Your task to perform on an android device: Go to accessibility settings Image 0: 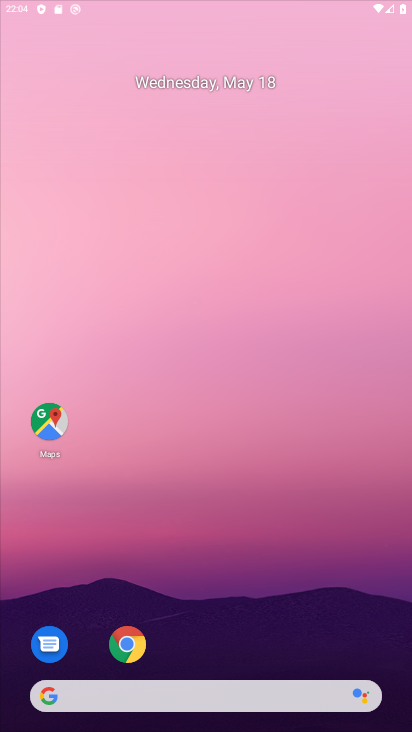
Step 0: click (354, 182)
Your task to perform on an android device: Go to accessibility settings Image 1: 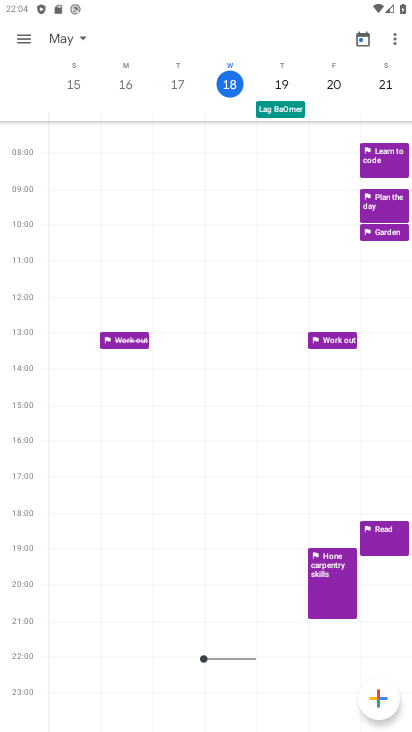
Step 1: press home button
Your task to perform on an android device: Go to accessibility settings Image 2: 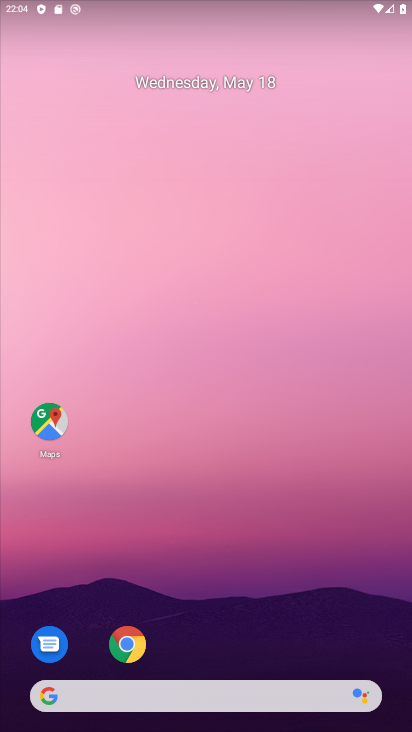
Step 2: drag from (222, 600) to (224, 203)
Your task to perform on an android device: Go to accessibility settings Image 3: 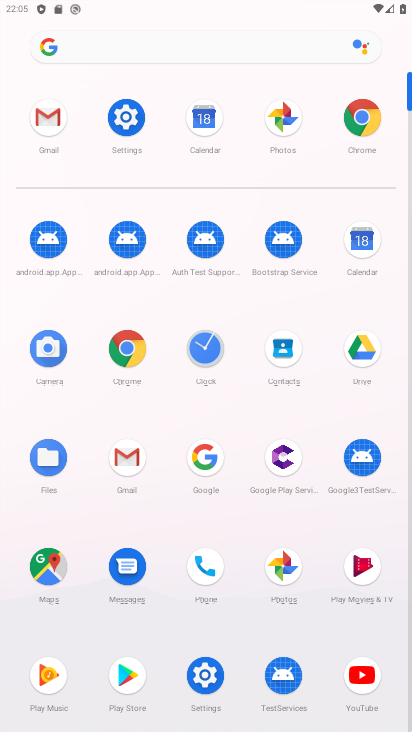
Step 3: click (125, 127)
Your task to perform on an android device: Go to accessibility settings Image 4: 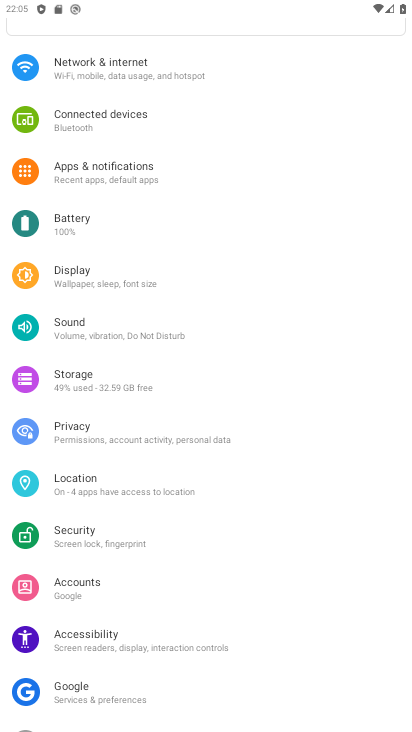
Step 4: drag from (137, 613) to (175, 188)
Your task to perform on an android device: Go to accessibility settings Image 5: 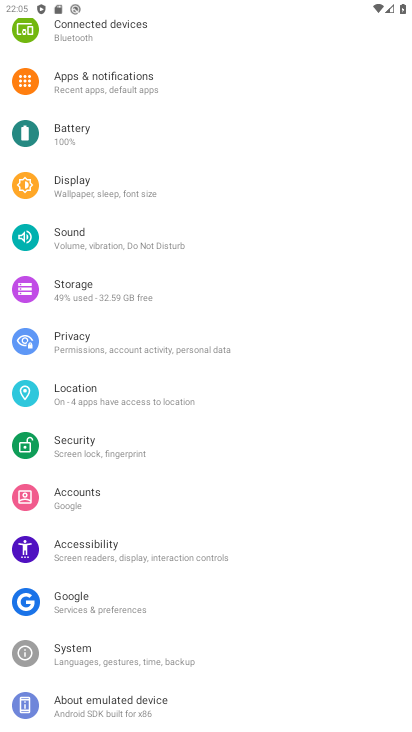
Step 5: click (79, 551)
Your task to perform on an android device: Go to accessibility settings Image 6: 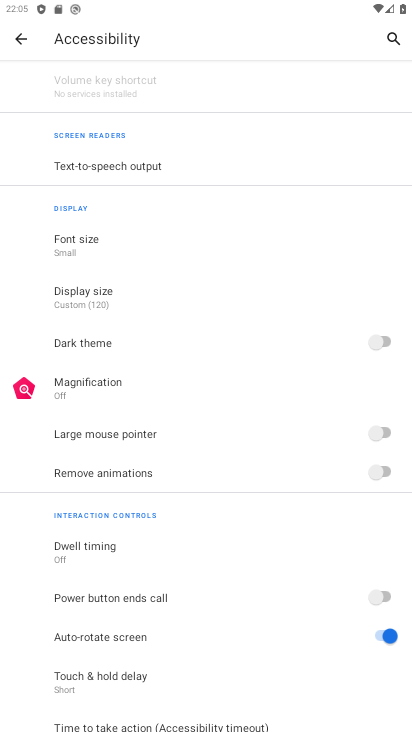
Step 6: task complete